Your task to perform on an android device: What is the news today? Image 0: 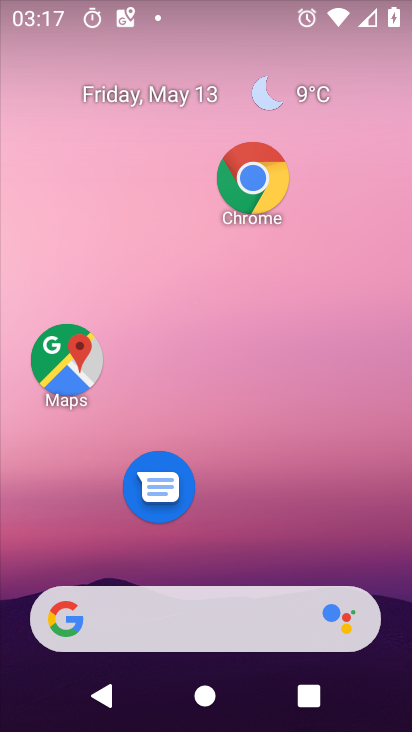
Step 0: drag from (263, 531) to (290, 68)
Your task to perform on an android device: What is the news today? Image 1: 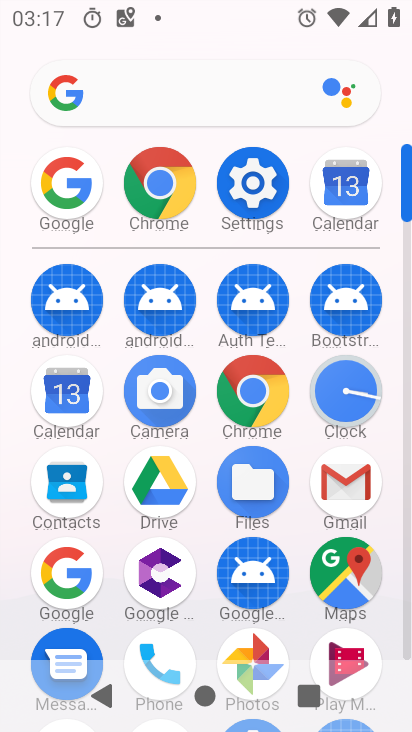
Step 1: click (62, 569)
Your task to perform on an android device: What is the news today? Image 2: 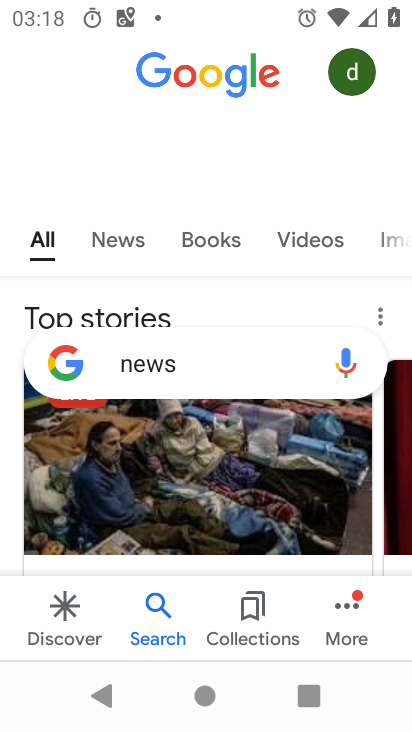
Step 2: click (170, 370)
Your task to perform on an android device: What is the news today? Image 3: 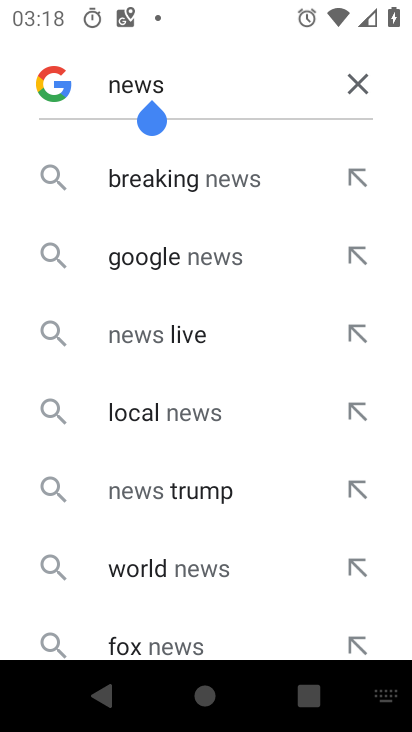
Step 3: click (358, 83)
Your task to perform on an android device: What is the news today? Image 4: 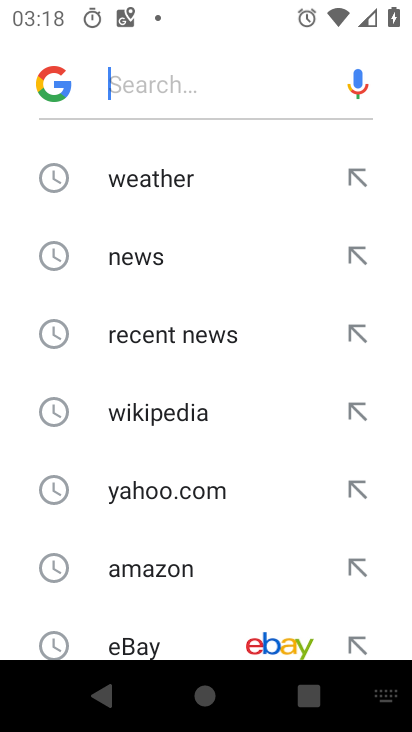
Step 4: drag from (186, 566) to (217, 233)
Your task to perform on an android device: What is the news today? Image 5: 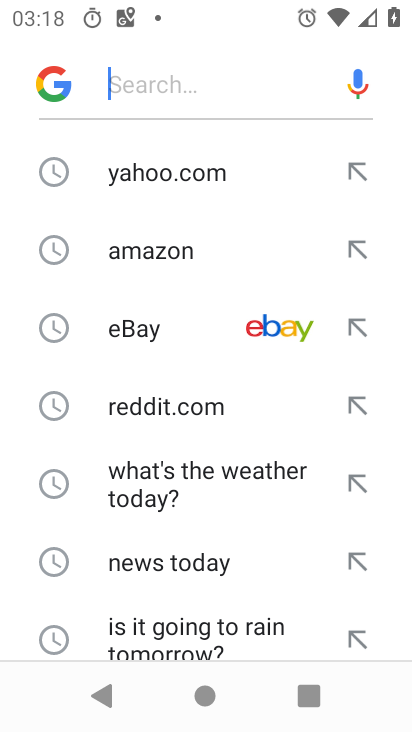
Step 5: drag from (154, 539) to (226, 697)
Your task to perform on an android device: What is the news today? Image 6: 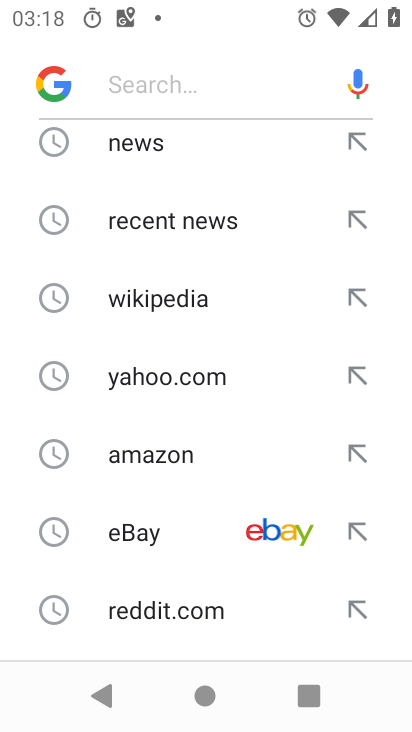
Step 6: click (149, 89)
Your task to perform on an android device: What is the news today? Image 7: 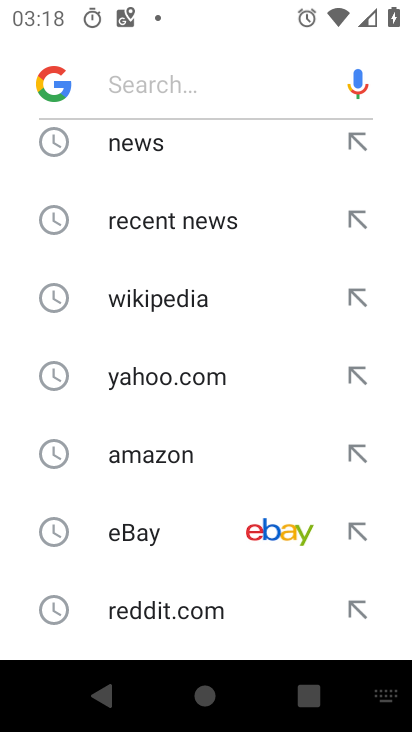
Step 7: click (186, 147)
Your task to perform on an android device: What is the news today? Image 8: 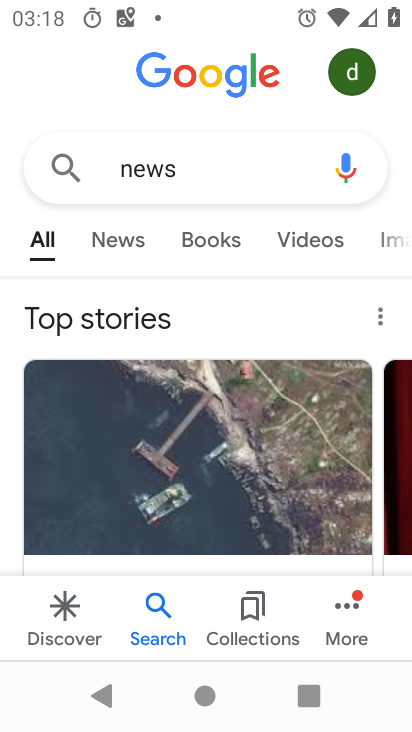
Step 8: task complete